Your task to perform on an android device: open a bookmark in the chrome app Image 0: 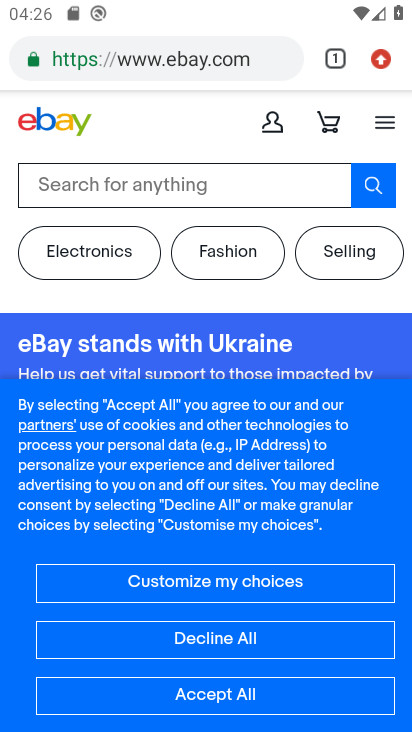
Step 0: task complete